Your task to perform on an android device: open app "Adobe Acrobat Reader" Image 0: 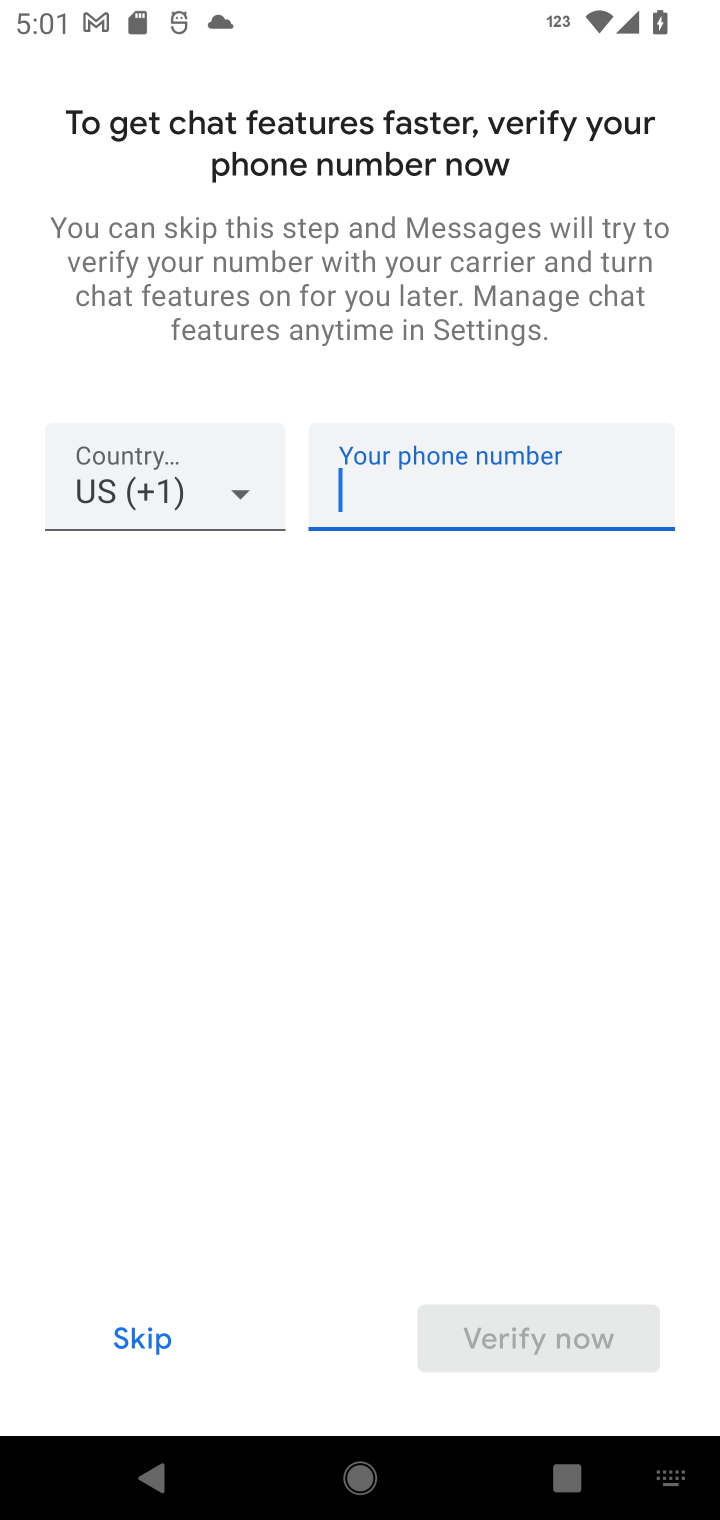
Step 0: press home button
Your task to perform on an android device: open app "Adobe Acrobat Reader" Image 1: 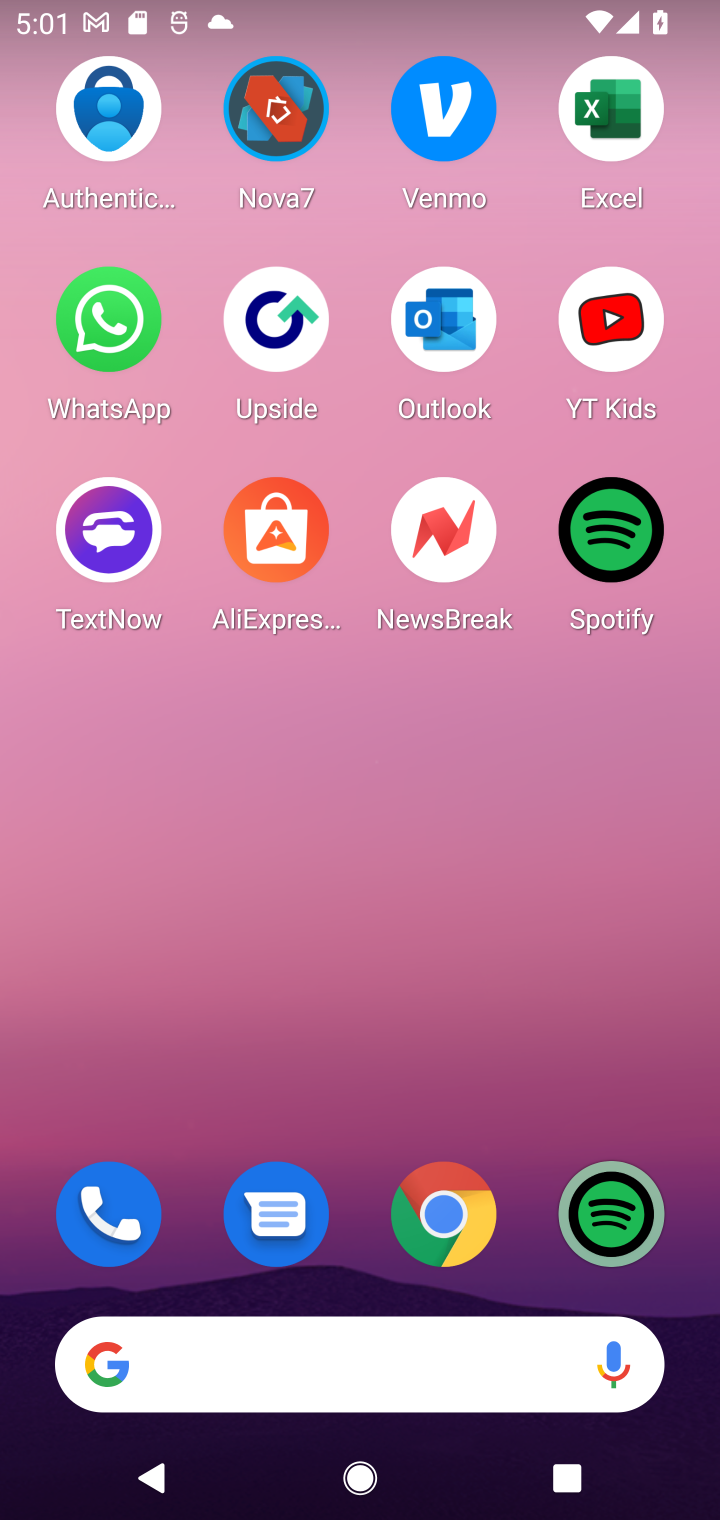
Step 1: drag from (357, 1219) to (462, 115)
Your task to perform on an android device: open app "Adobe Acrobat Reader" Image 2: 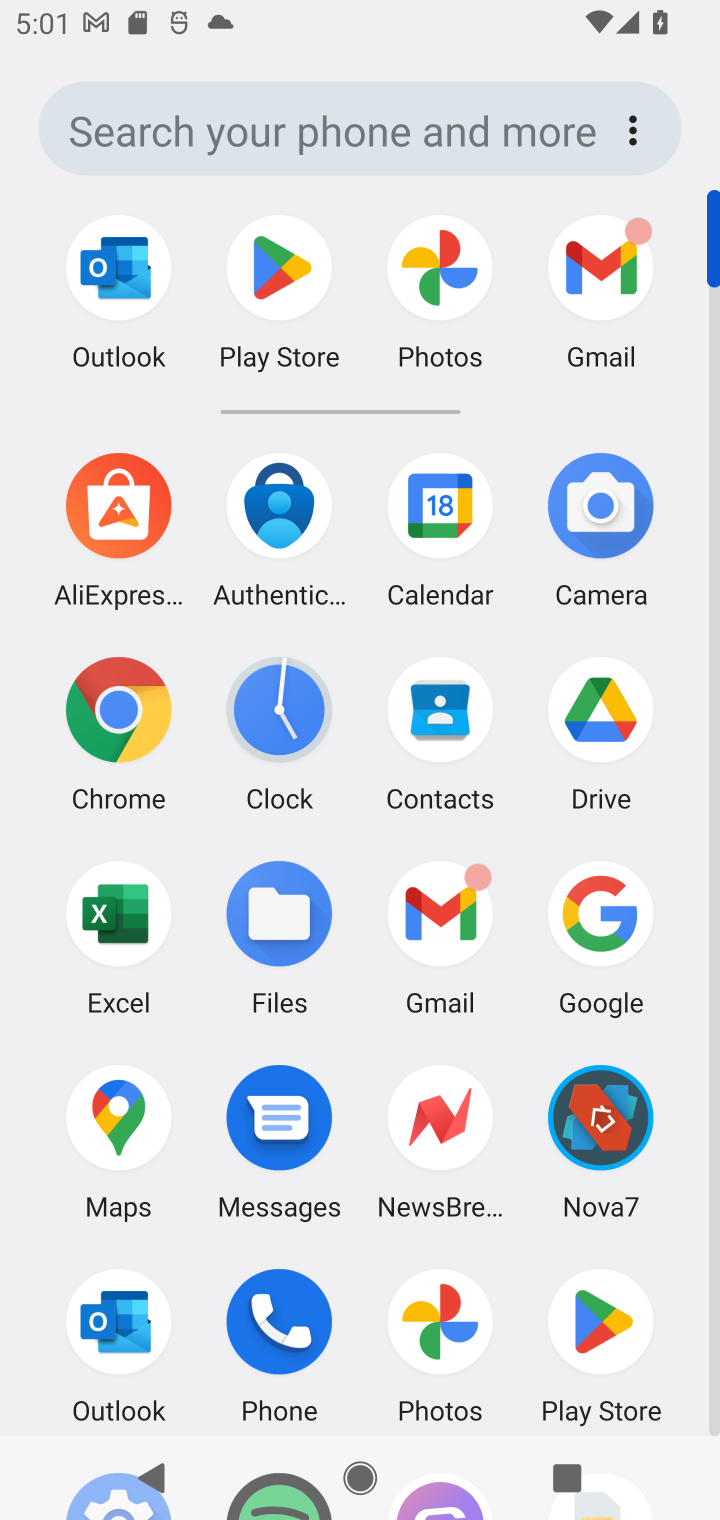
Step 2: click (282, 299)
Your task to perform on an android device: open app "Adobe Acrobat Reader" Image 3: 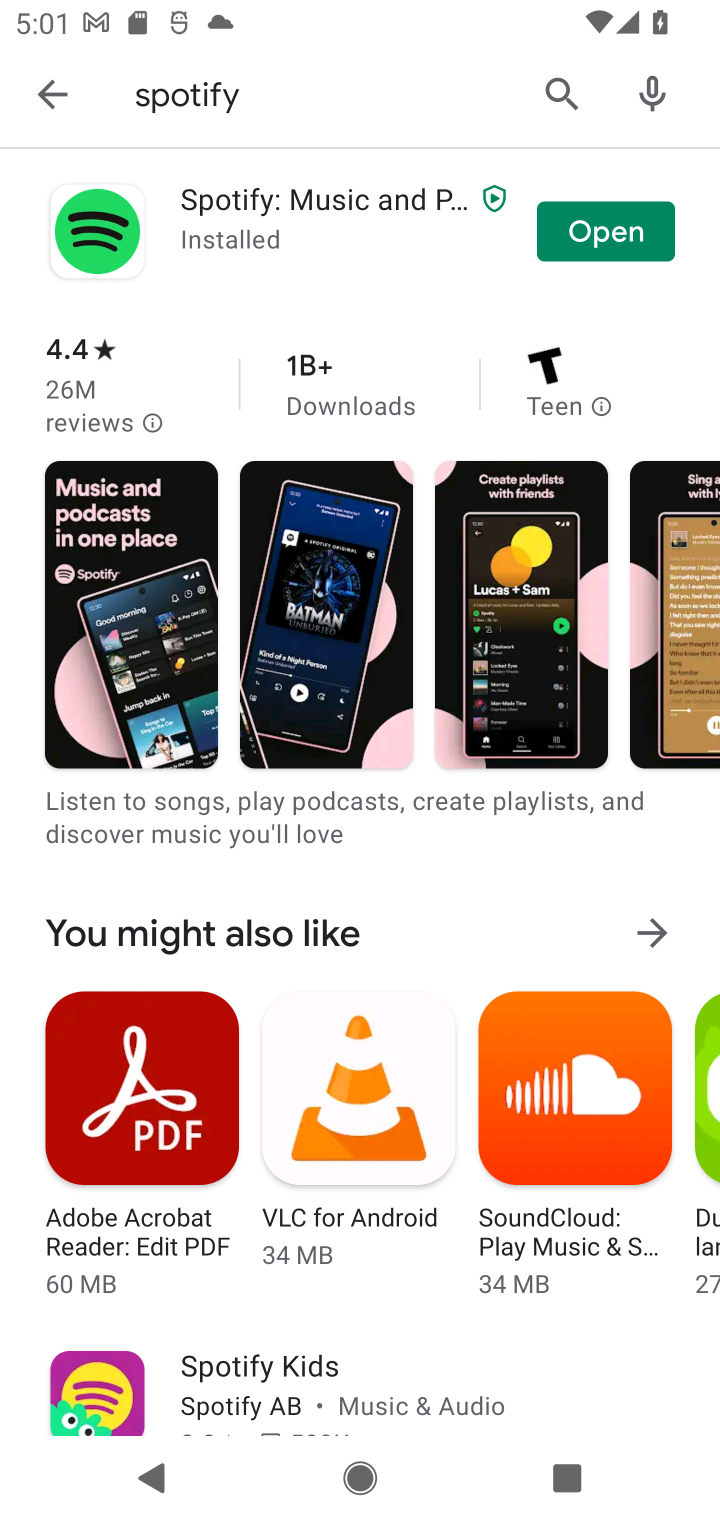
Step 3: click (263, 98)
Your task to perform on an android device: open app "Adobe Acrobat Reader" Image 4: 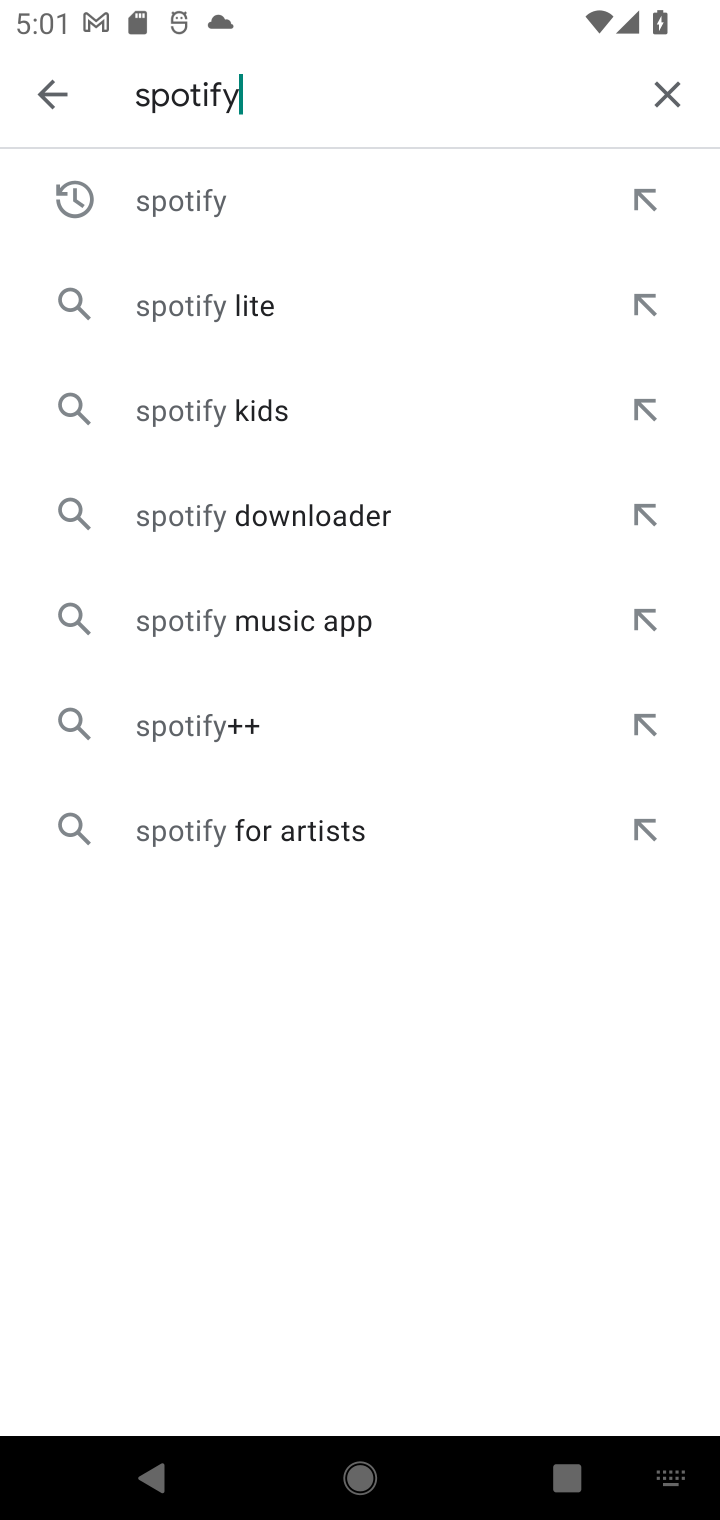
Step 4: click (644, 83)
Your task to perform on an android device: open app "Adobe Acrobat Reader" Image 5: 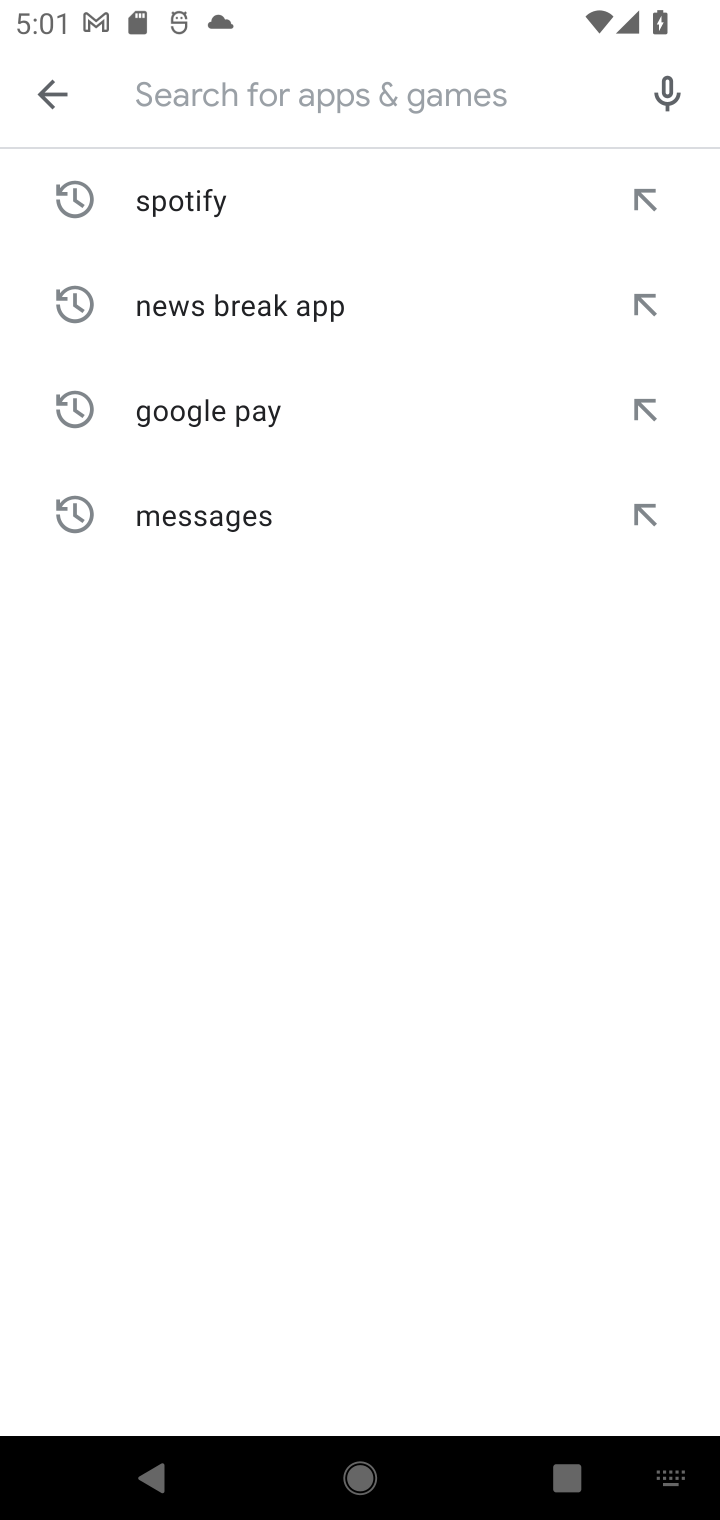
Step 5: type "Adobe Acrobat Reader"
Your task to perform on an android device: open app "Adobe Acrobat Reader" Image 6: 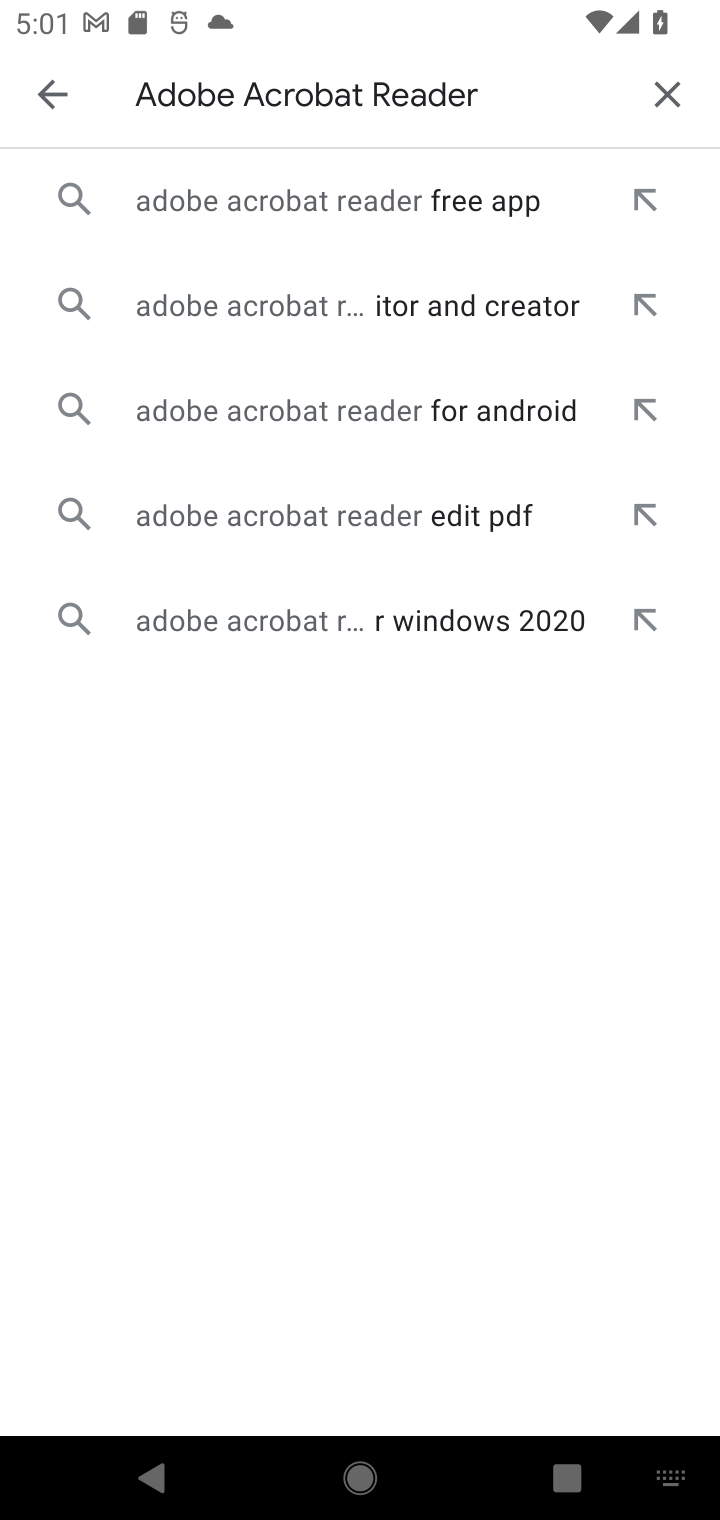
Step 6: click (311, 207)
Your task to perform on an android device: open app "Adobe Acrobat Reader" Image 7: 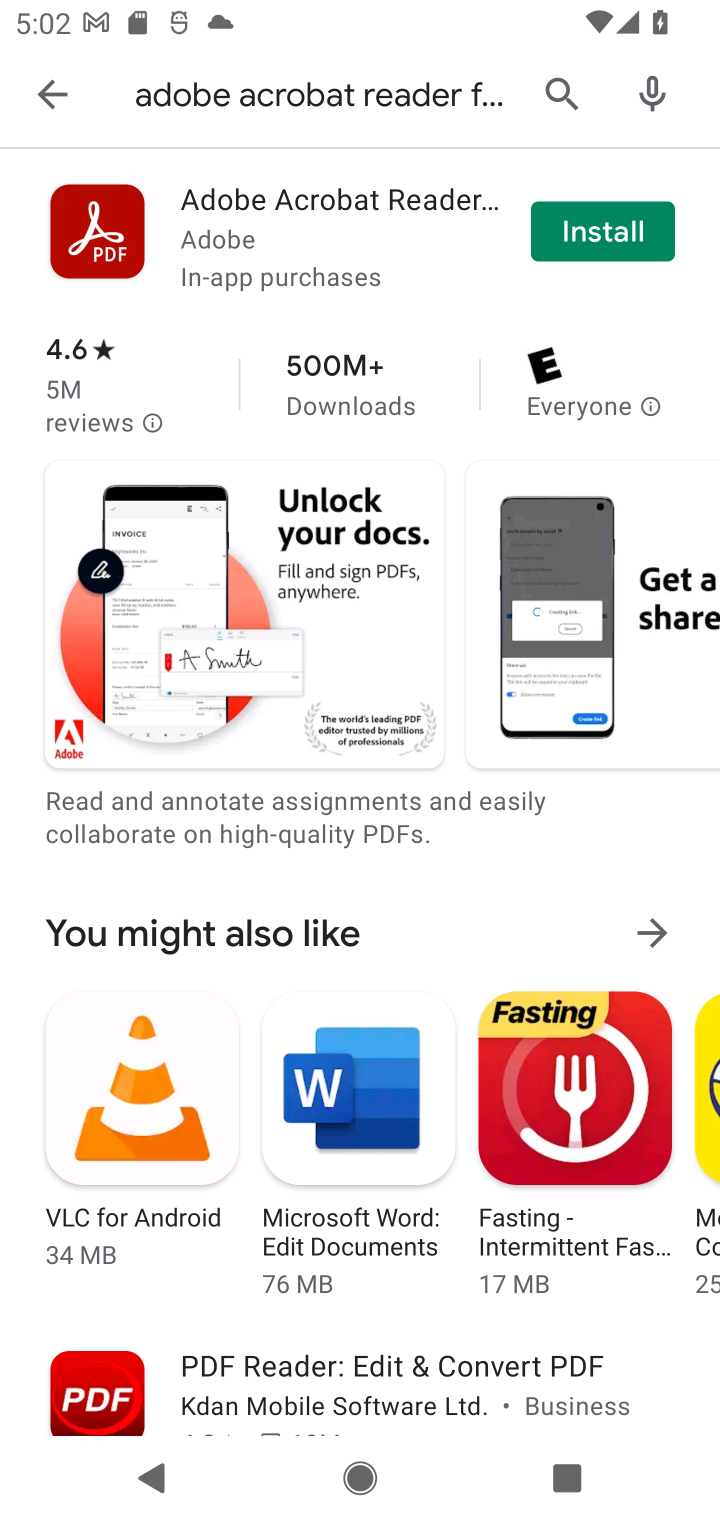
Step 7: task complete